Your task to perform on an android device: open chrome and create a bookmark for the current page Image 0: 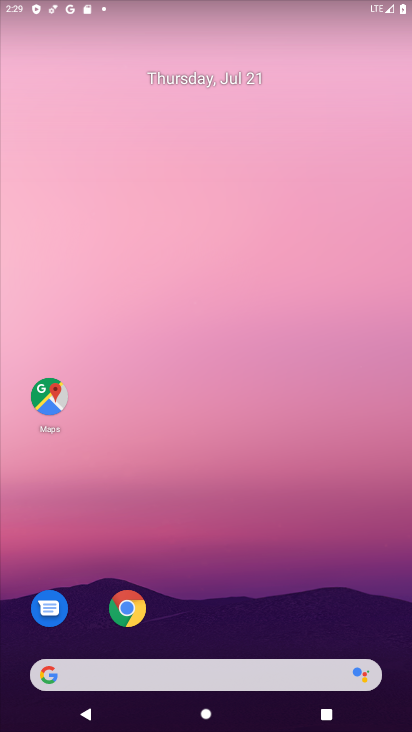
Step 0: drag from (231, 641) to (382, 436)
Your task to perform on an android device: open chrome and create a bookmark for the current page Image 1: 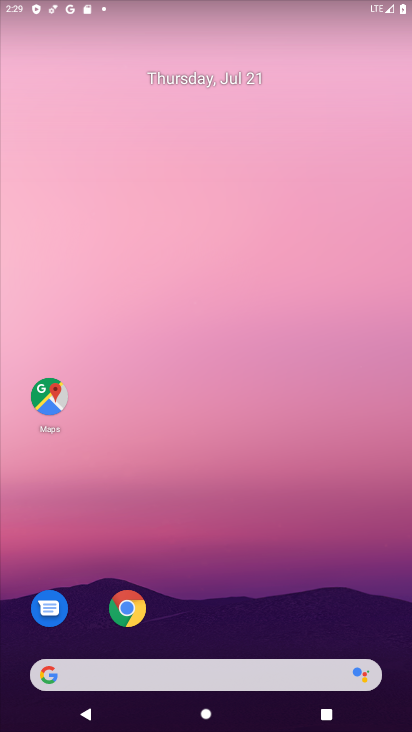
Step 1: click (130, 607)
Your task to perform on an android device: open chrome and create a bookmark for the current page Image 2: 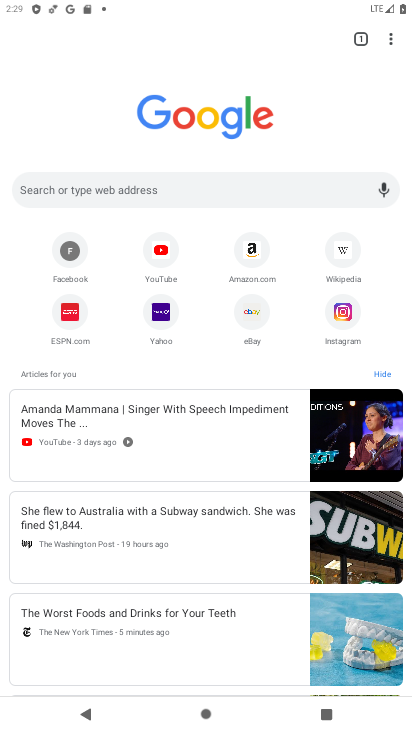
Step 2: task complete